Your task to perform on an android device: Open the calendar and show me this week's events? Image 0: 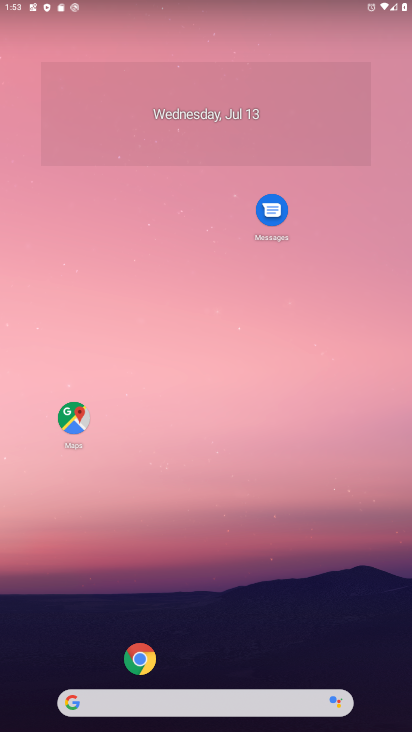
Step 0: click (82, 406)
Your task to perform on an android device: Open the calendar and show me this week's events? Image 1: 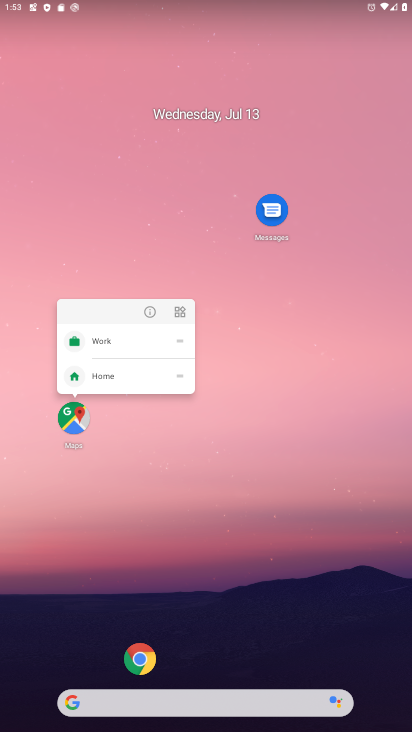
Step 1: click (62, 427)
Your task to perform on an android device: Open the calendar and show me this week's events? Image 2: 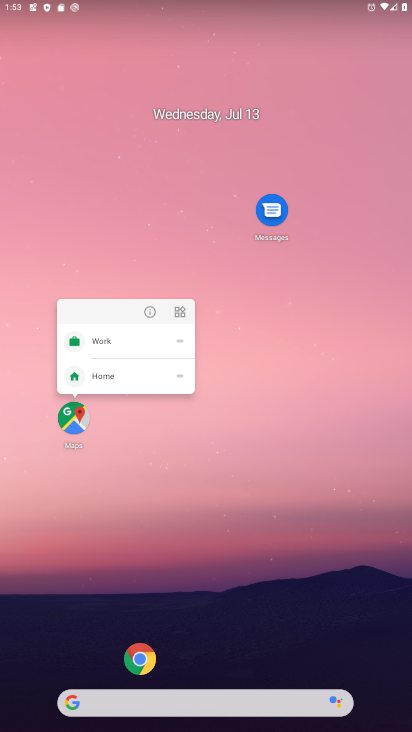
Step 2: click (62, 424)
Your task to perform on an android device: Open the calendar and show me this week's events? Image 3: 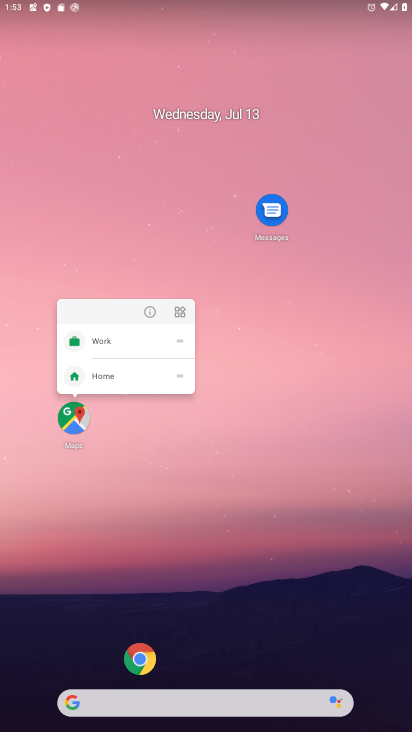
Step 3: click (62, 405)
Your task to perform on an android device: Open the calendar and show me this week's events? Image 4: 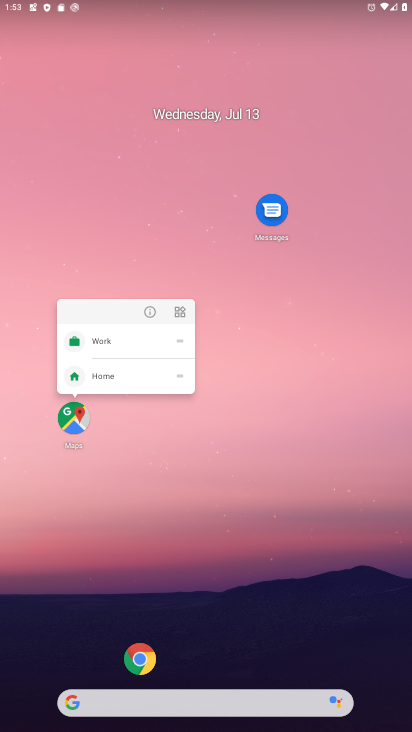
Step 4: task complete